Your task to perform on an android device: turn off location Image 0: 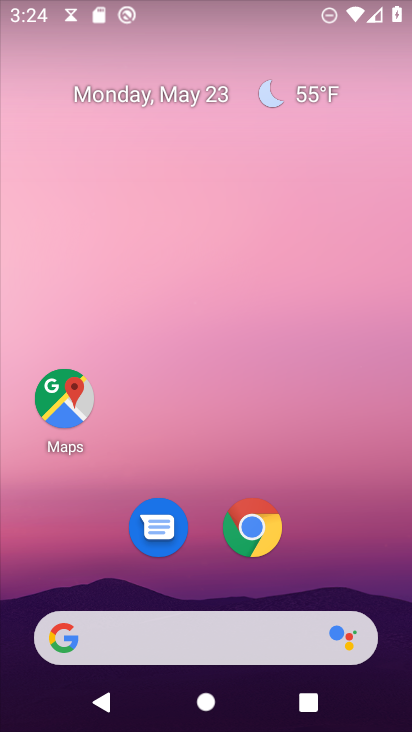
Step 0: click (250, 523)
Your task to perform on an android device: turn off location Image 1: 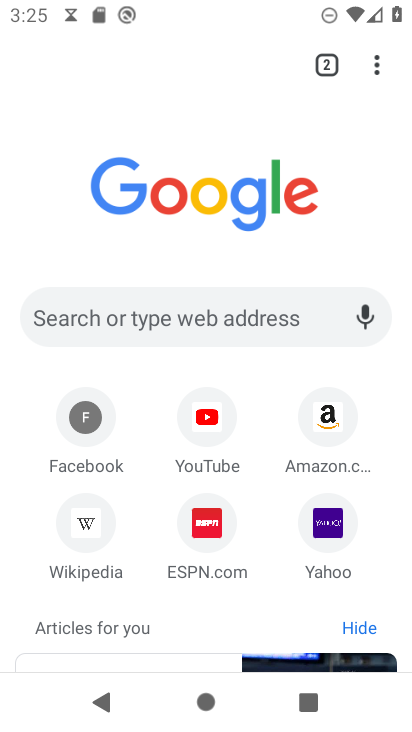
Step 1: press home button
Your task to perform on an android device: turn off location Image 2: 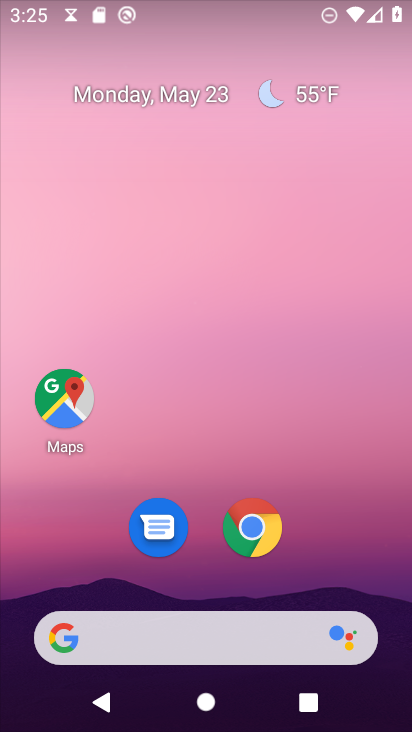
Step 2: drag from (205, 582) to (230, 30)
Your task to perform on an android device: turn off location Image 3: 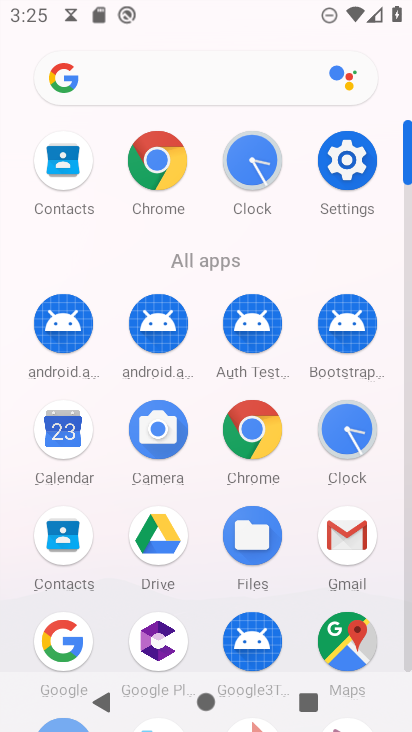
Step 3: click (350, 154)
Your task to perform on an android device: turn off location Image 4: 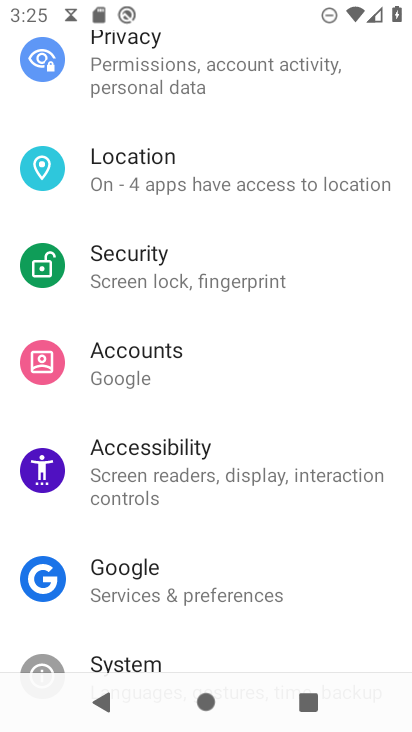
Step 4: click (211, 161)
Your task to perform on an android device: turn off location Image 5: 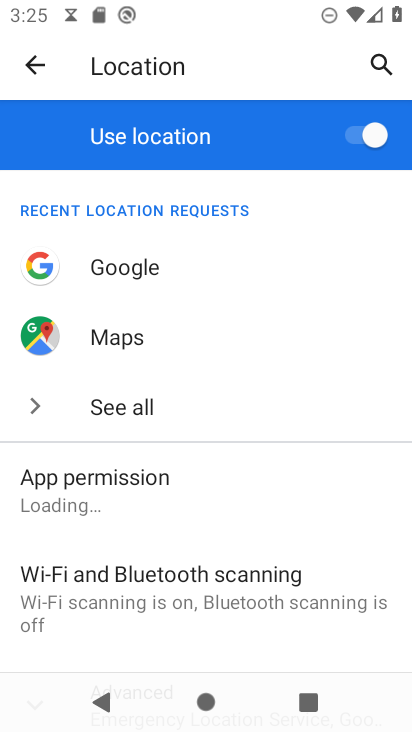
Step 5: click (372, 135)
Your task to perform on an android device: turn off location Image 6: 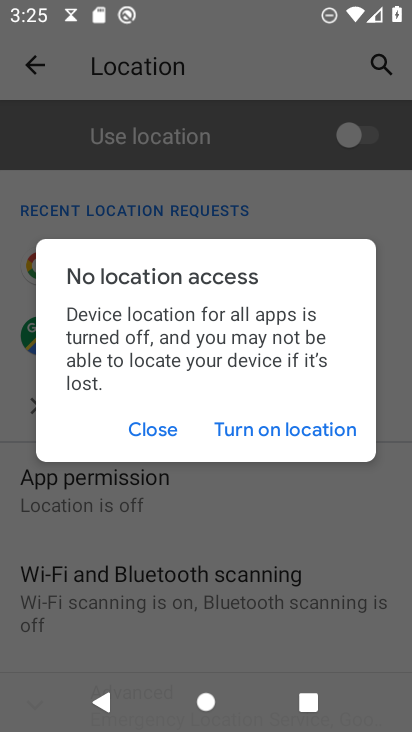
Step 6: click (147, 427)
Your task to perform on an android device: turn off location Image 7: 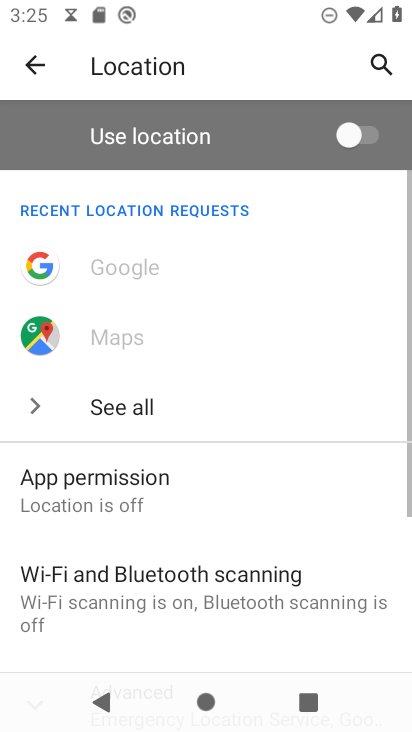
Step 7: task complete